Your task to perform on an android device: check out phone information Image 0: 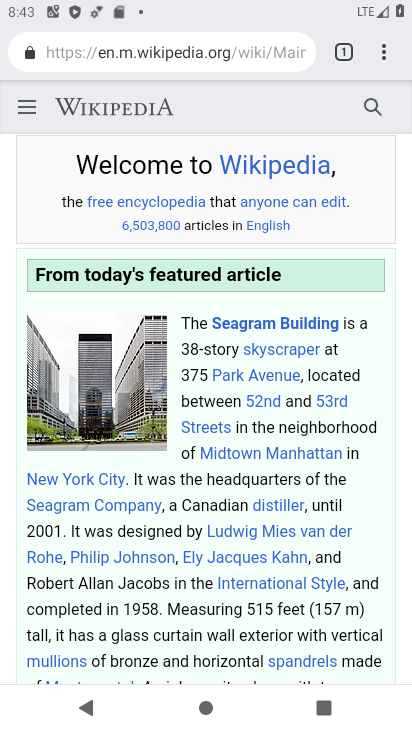
Step 0: press home button
Your task to perform on an android device: check out phone information Image 1: 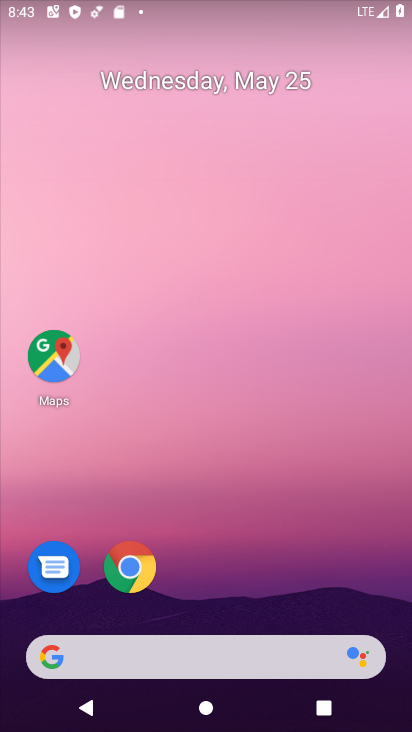
Step 1: drag from (198, 539) to (205, 82)
Your task to perform on an android device: check out phone information Image 2: 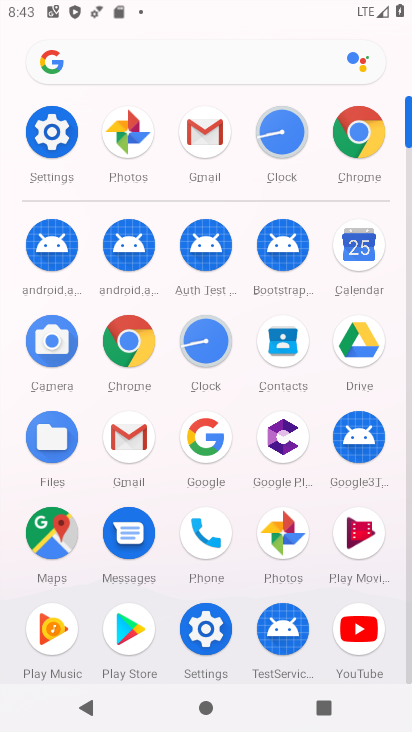
Step 2: click (212, 526)
Your task to perform on an android device: check out phone information Image 3: 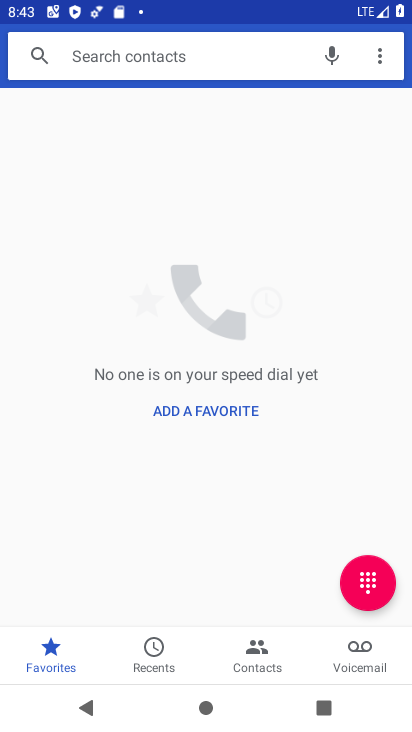
Step 3: click (377, 59)
Your task to perform on an android device: check out phone information Image 4: 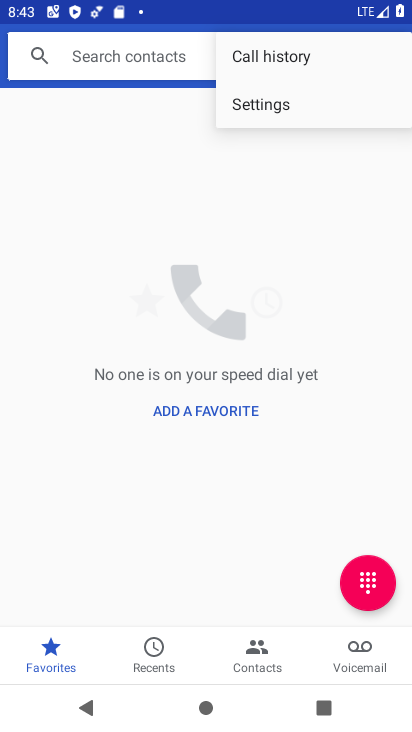
Step 4: click (309, 111)
Your task to perform on an android device: check out phone information Image 5: 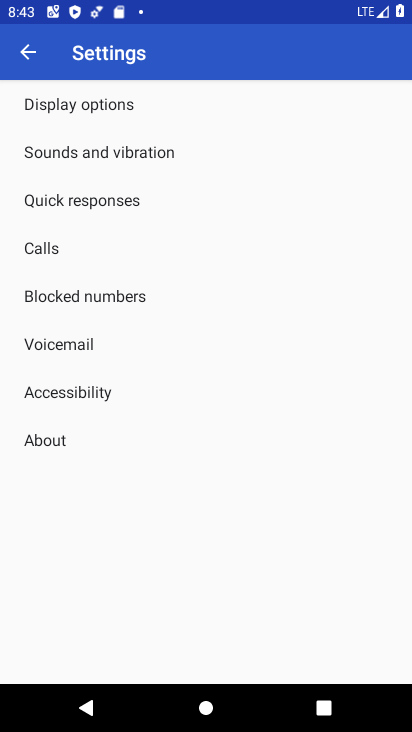
Step 5: click (54, 436)
Your task to perform on an android device: check out phone information Image 6: 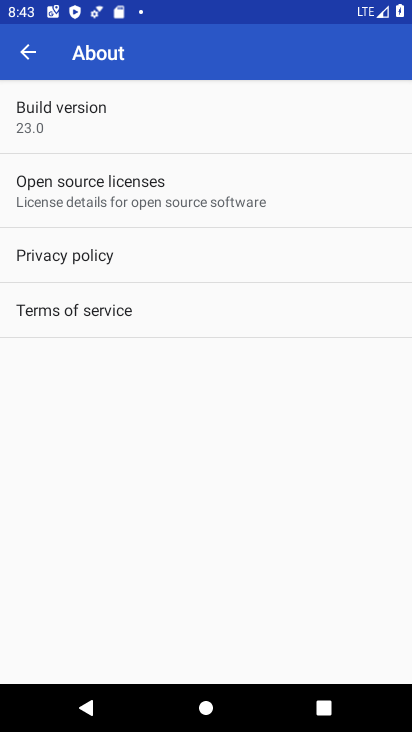
Step 6: task complete